Your task to perform on an android device: turn on javascript in the chrome app Image 0: 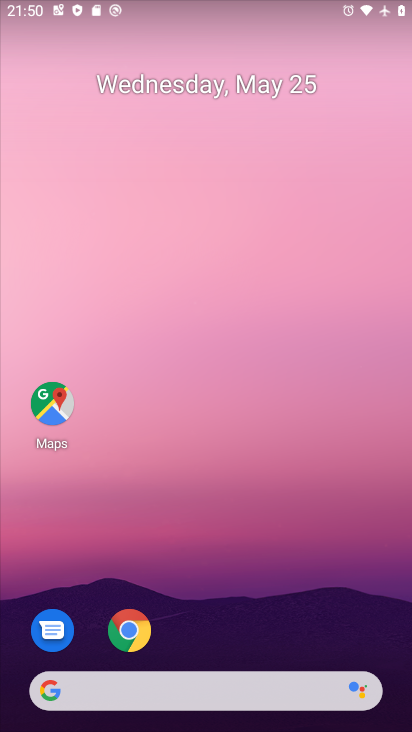
Step 0: click (135, 622)
Your task to perform on an android device: turn on javascript in the chrome app Image 1: 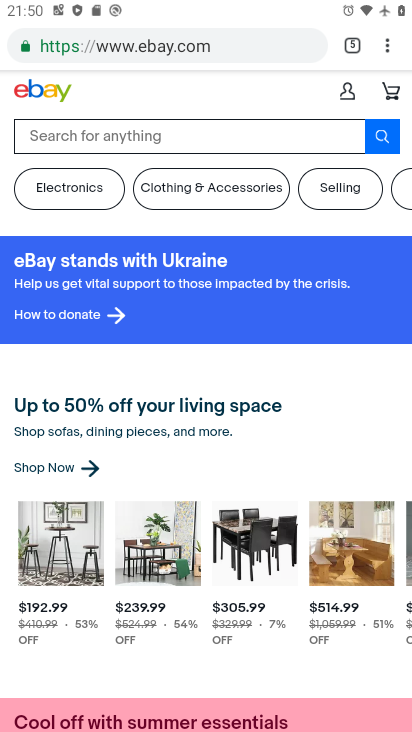
Step 1: click (383, 49)
Your task to perform on an android device: turn on javascript in the chrome app Image 2: 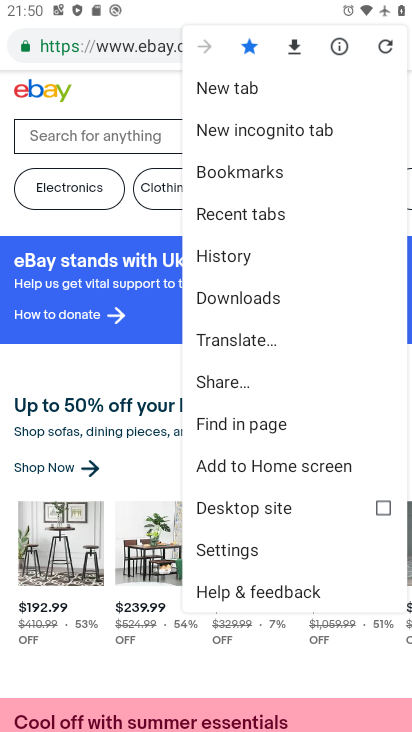
Step 2: click (266, 548)
Your task to perform on an android device: turn on javascript in the chrome app Image 3: 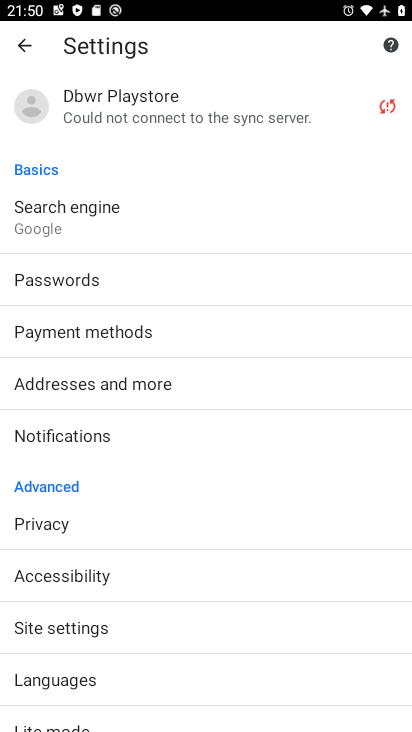
Step 3: drag from (111, 631) to (139, 357)
Your task to perform on an android device: turn on javascript in the chrome app Image 4: 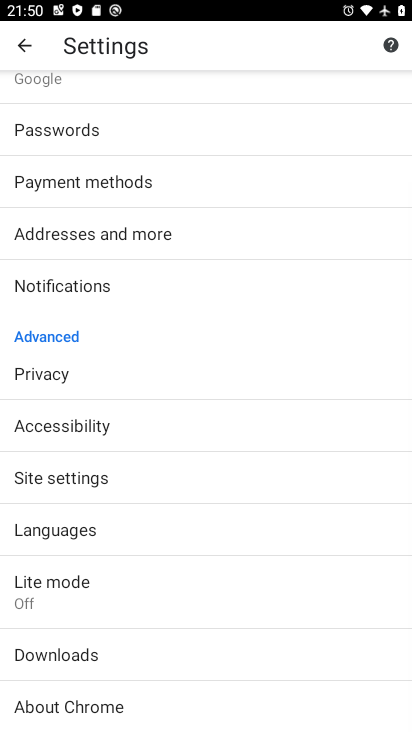
Step 4: drag from (120, 664) to (160, 403)
Your task to perform on an android device: turn on javascript in the chrome app Image 5: 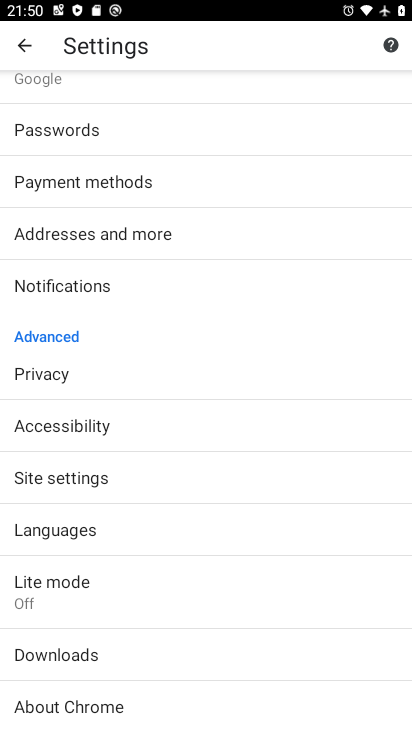
Step 5: drag from (166, 574) to (155, 396)
Your task to perform on an android device: turn on javascript in the chrome app Image 6: 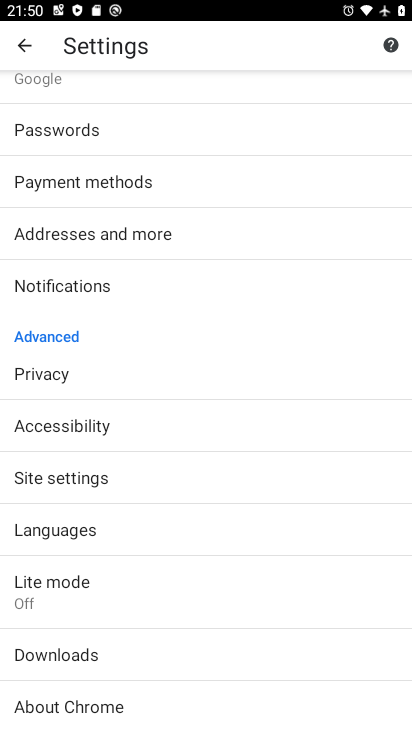
Step 6: drag from (161, 639) to (165, 489)
Your task to perform on an android device: turn on javascript in the chrome app Image 7: 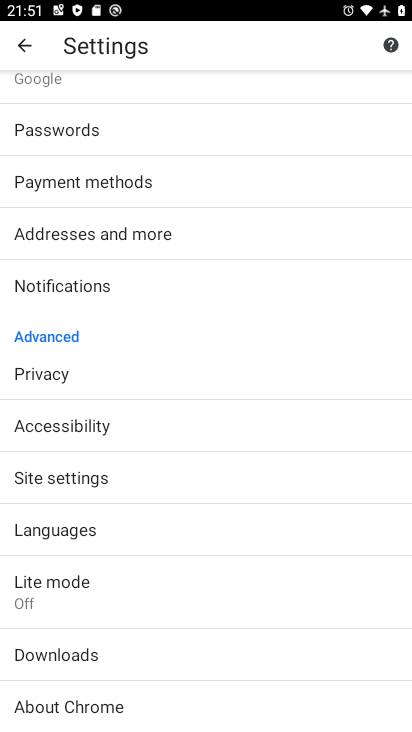
Step 7: drag from (166, 577) to (168, 479)
Your task to perform on an android device: turn on javascript in the chrome app Image 8: 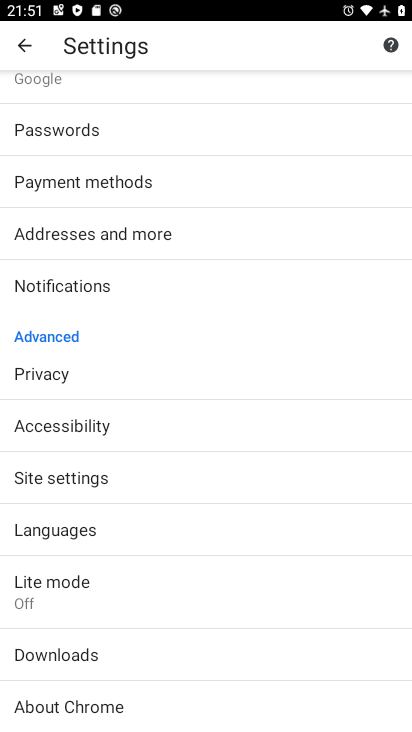
Step 8: click (100, 472)
Your task to perform on an android device: turn on javascript in the chrome app Image 9: 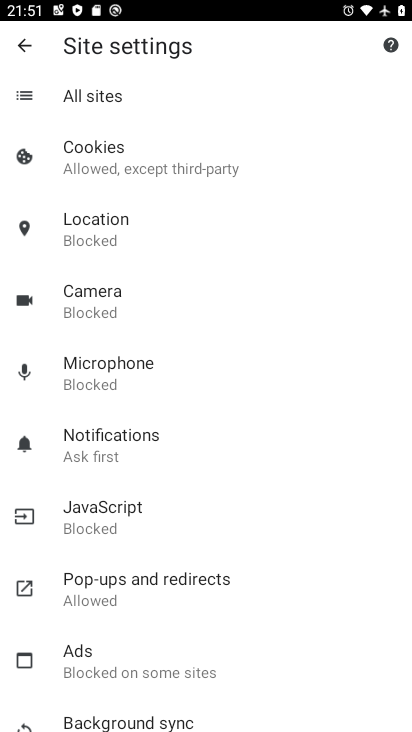
Step 9: click (143, 510)
Your task to perform on an android device: turn on javascript in the chrome app Image 10: 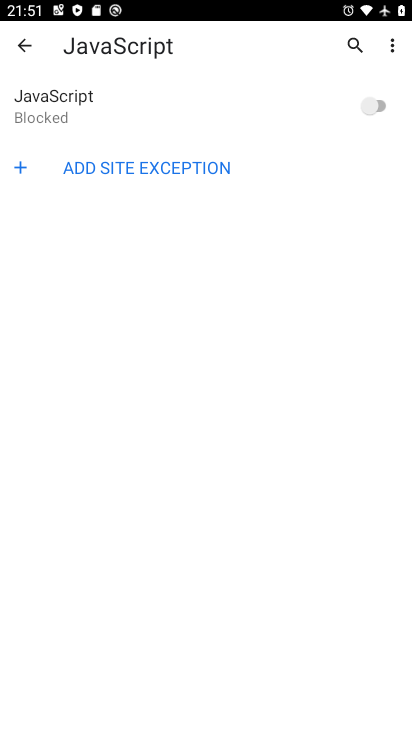
Step 10: click (380, 96)
Your task to perform on an android device: turn on javascript in the chrome app Image 11: 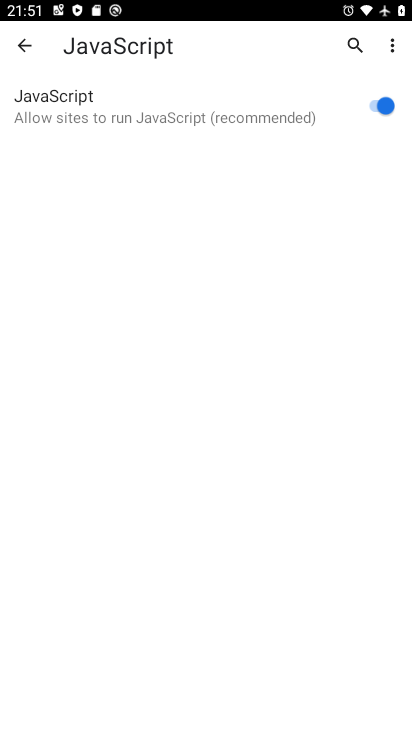
Step 11: task complete